Your task to perform on an android device: Go to notification settings Image 0: 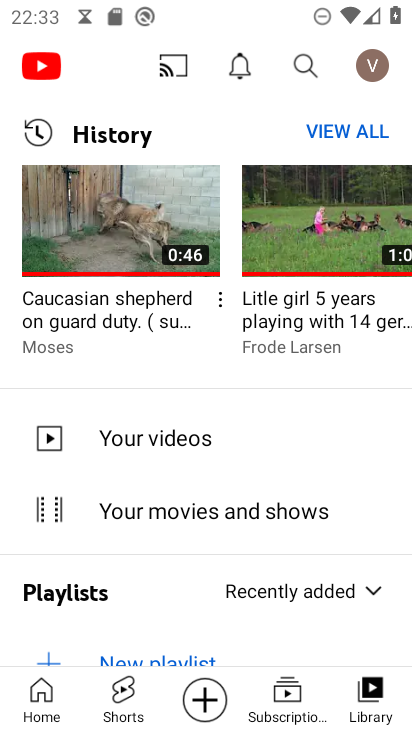
Step 0: press home button
Your task to perform on an android device: Go to notification settings Image 1: 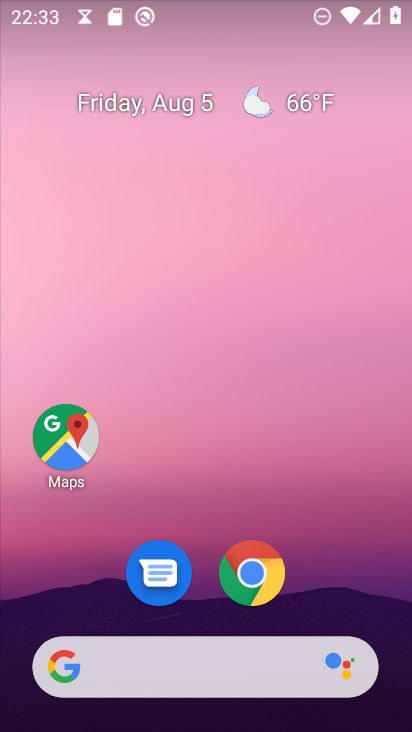
Step 1: drag from (161, 663) to (343, 56)
Your task to perform on an android device: Go to notification settings Image 2: 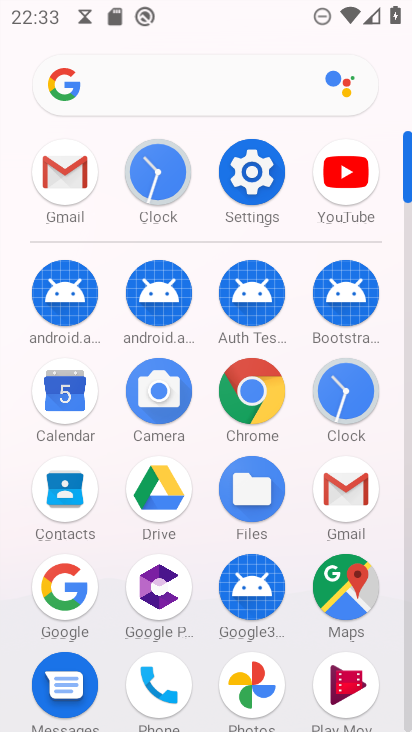
Step 2: click (251, 173)
Your task to perform on an android device: Go to notification settings Image 3: 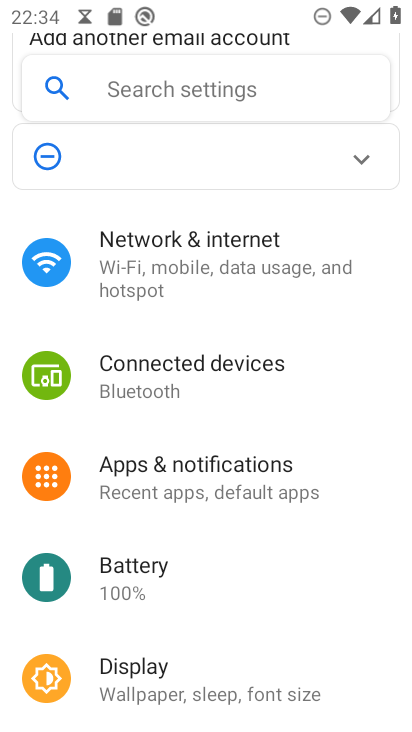
Step 3: click (212, 467)
Your task to perform on an android device: Go to notification settings Image 4: 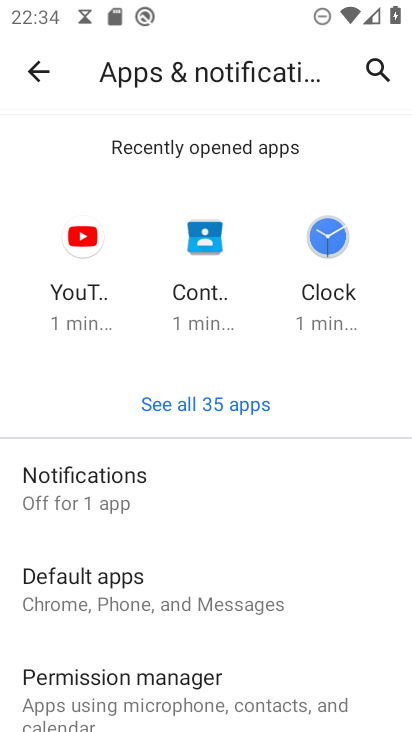
Step 4: click (80, 479)
Your task to perform on an android device: Go to notification settings Image 5: 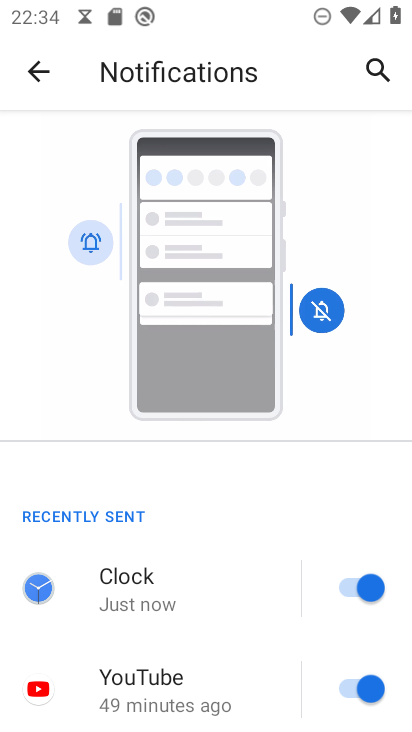
Step 5: task complete